Your task to perform on an android device: turn pop-ups off in chrome Image 0: 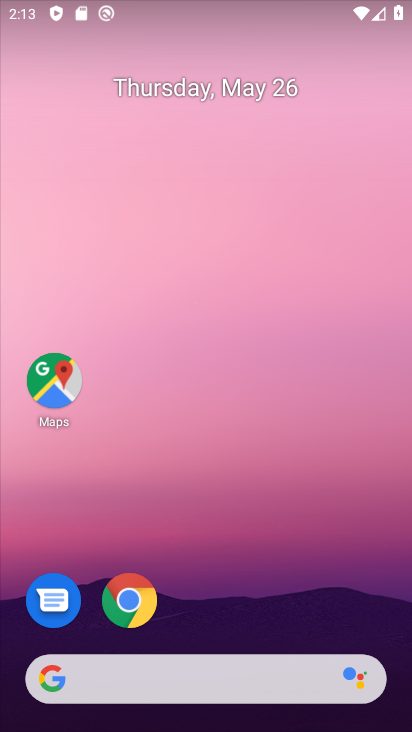
Step 0: click (130, 595)
Your task to perform on an android device: turn pop-ups off in chrome Image 1: 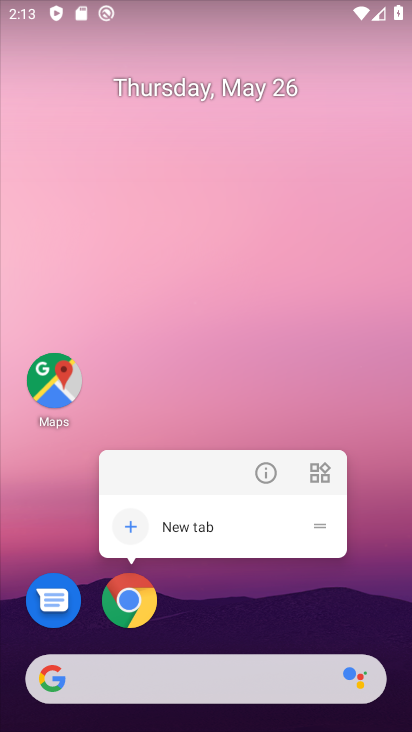
Step 1: click (141, 608)
Your task to perform on an android device: turn pop-ups off in chrome Image 2: 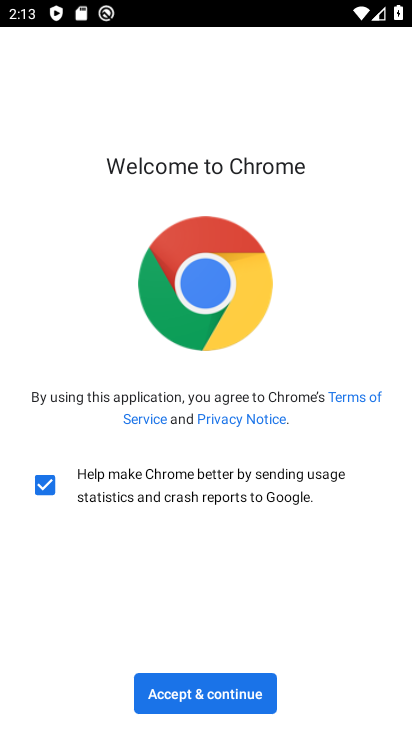
Step 2: click (223, 706)
Your task to perform on an android device: turn pop-ups off in chrome Image 3: 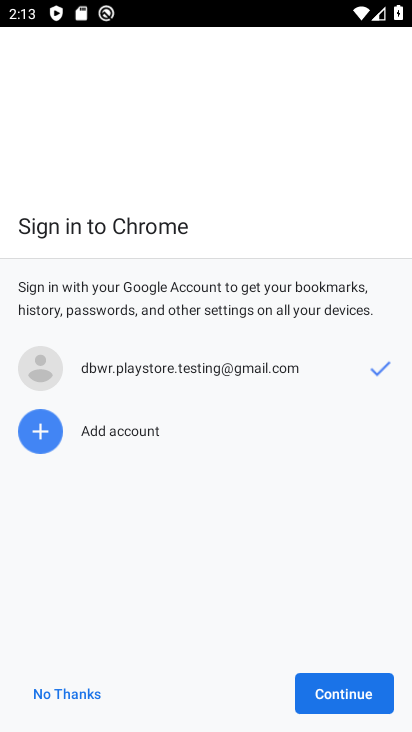
Step 3: click (343, 704)
Your task to perform on an android device: turn pop-ups off in chrome Image 4: 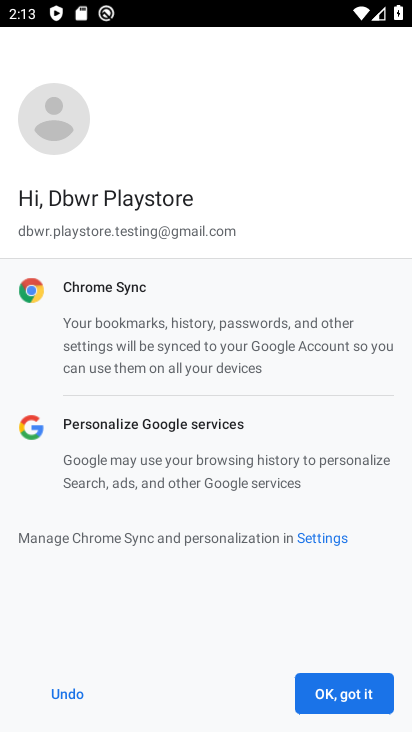
Step 4: click (346, 704)
Your task to perform on an android device: turn pop-ups off in chrome Image 5: 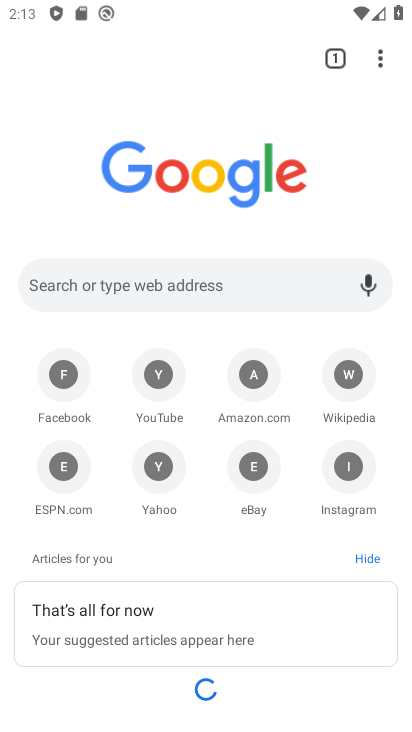
Step 5: drag from (390, 73) to (316, 507)
Your task to perform on an android device: turn pop-ups off in chrome Image 6: 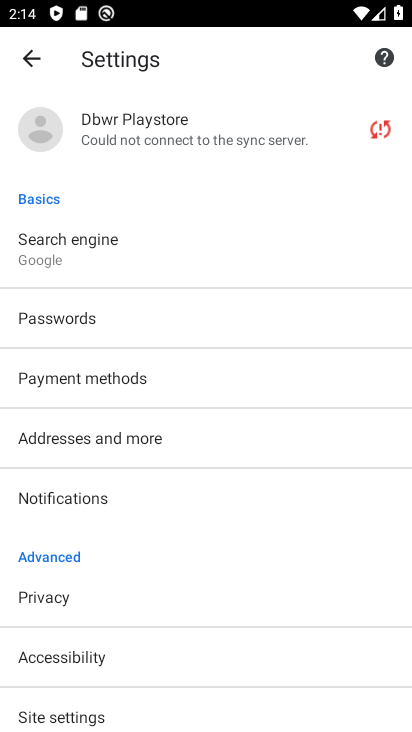
Step 6: drag from (169, 679) to (263, 314)
Your task to perform on an android device: turn pop-ups off in chrome Image 7: 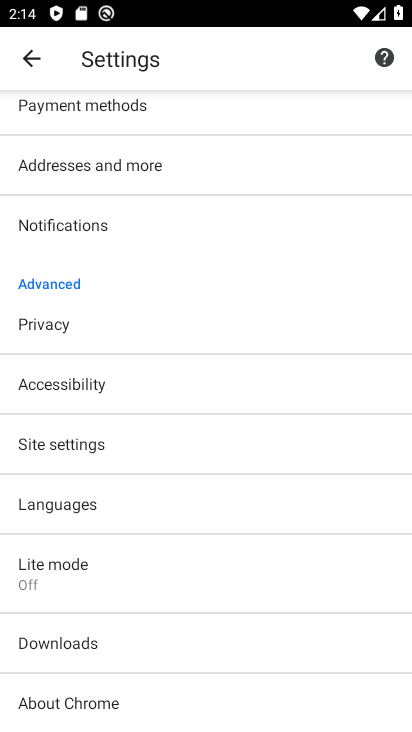
Step 7: click (118, 454)
Your task to perform on an android device: turn pop-ups off in chrome Image 8: 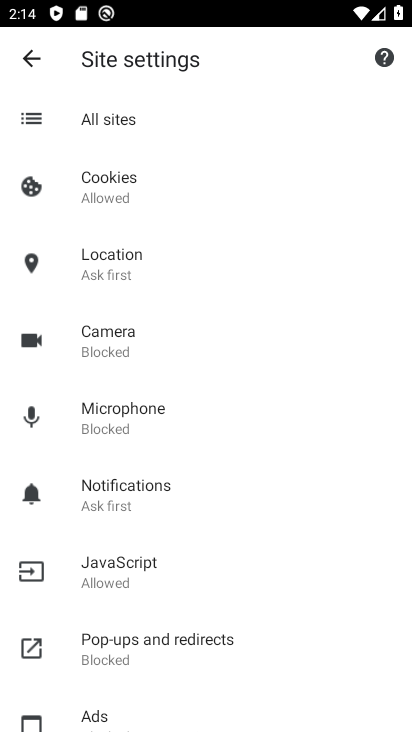
Step 8: drag from (148, 612) to (247, 403)
Your task to perform on an android device: turn pop-ups off in chrome Image 9: 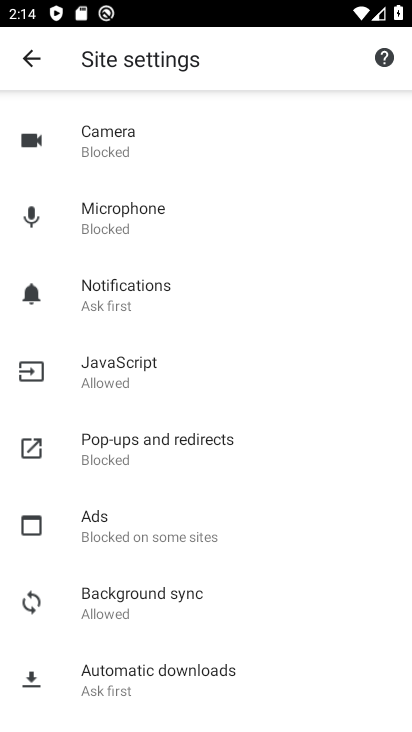
Step 9: click (200, 448)
Your task to perform on an android device: turn pop-ups off in chrome Image 10: 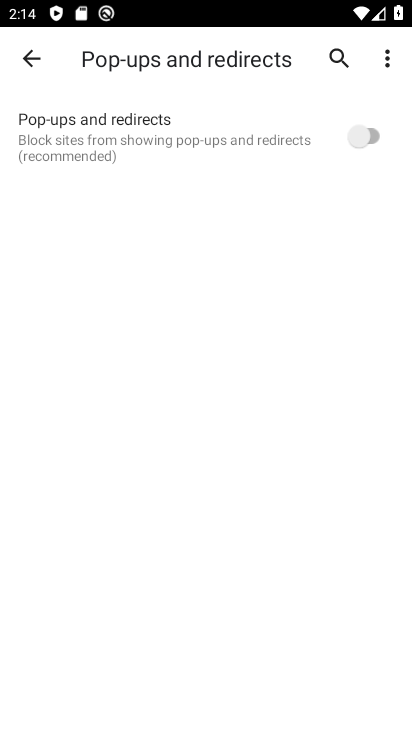
Step 10: task complete